Your task to perform on an android device: open app "Paramount+ | Peak Streaming" (install if not already installed) Image 0: 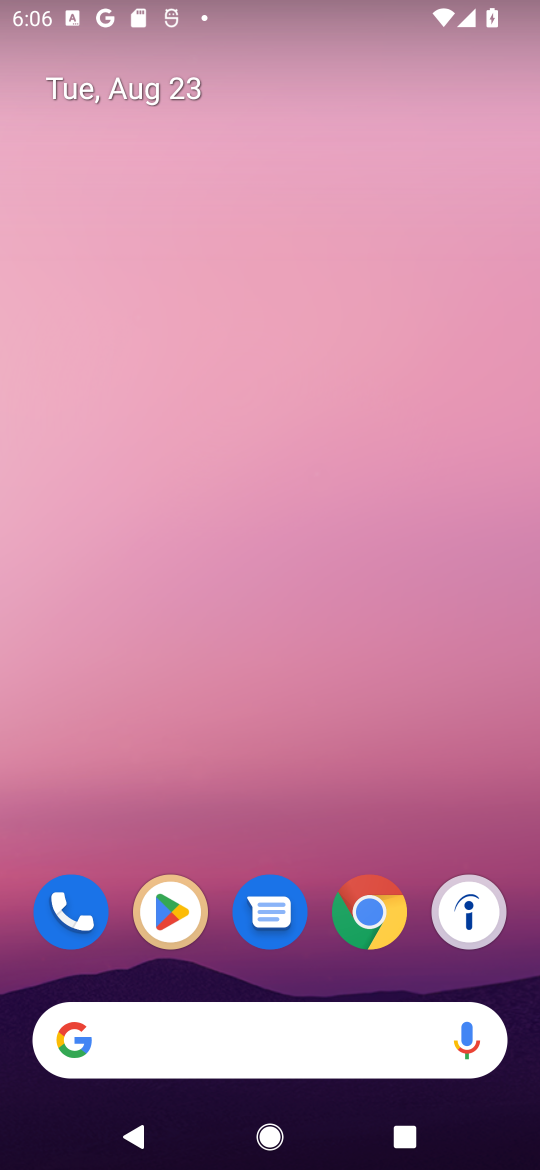
Step 0: click (163, 923)
Your task to perform on an android device: open app "Paramount+ | Peak Streaming" (install if not already installed) Image 1: 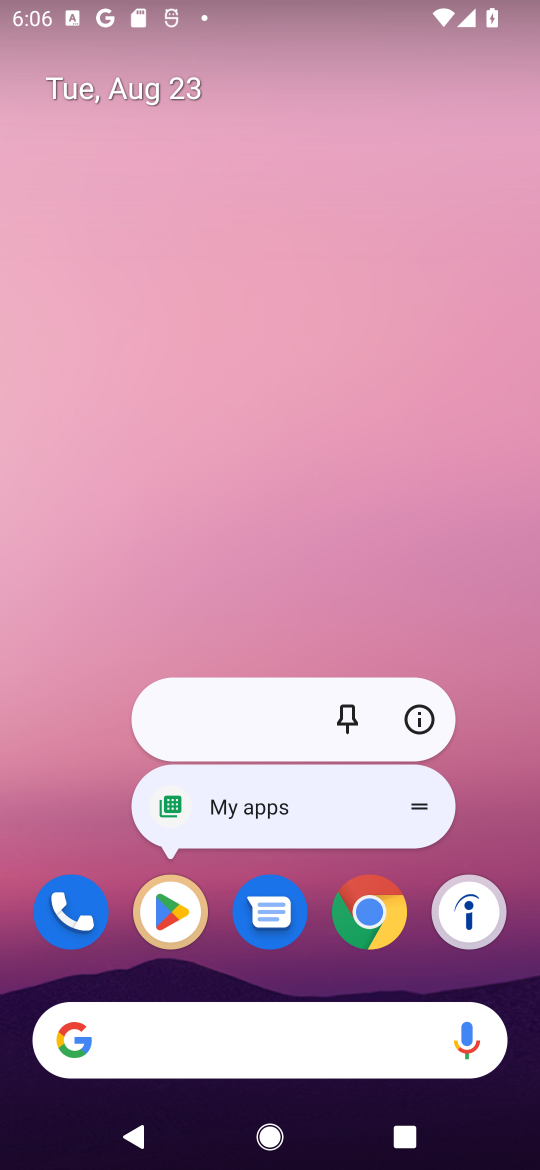
Step 1: click (163, 923)
Your task to perform on an android device: open app "Paramount+ | Peak Streaming" (install if not already installed) Image 2: 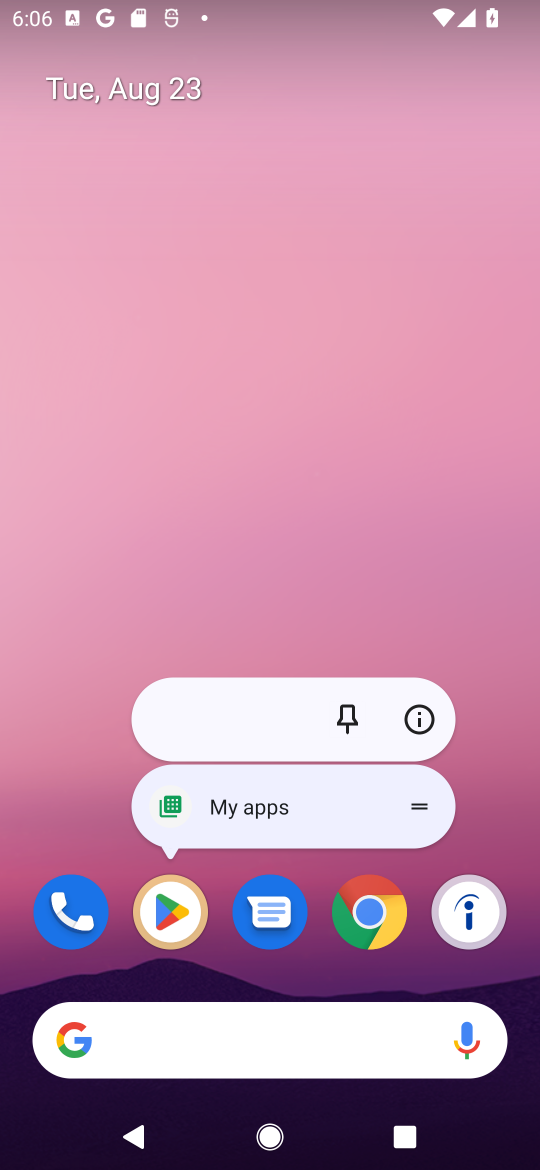
Step 2: click (168, 925)
Your task to perform on an android device: open app "Paramount+ | Peak Streaming" (install if not already installed) Image 3: 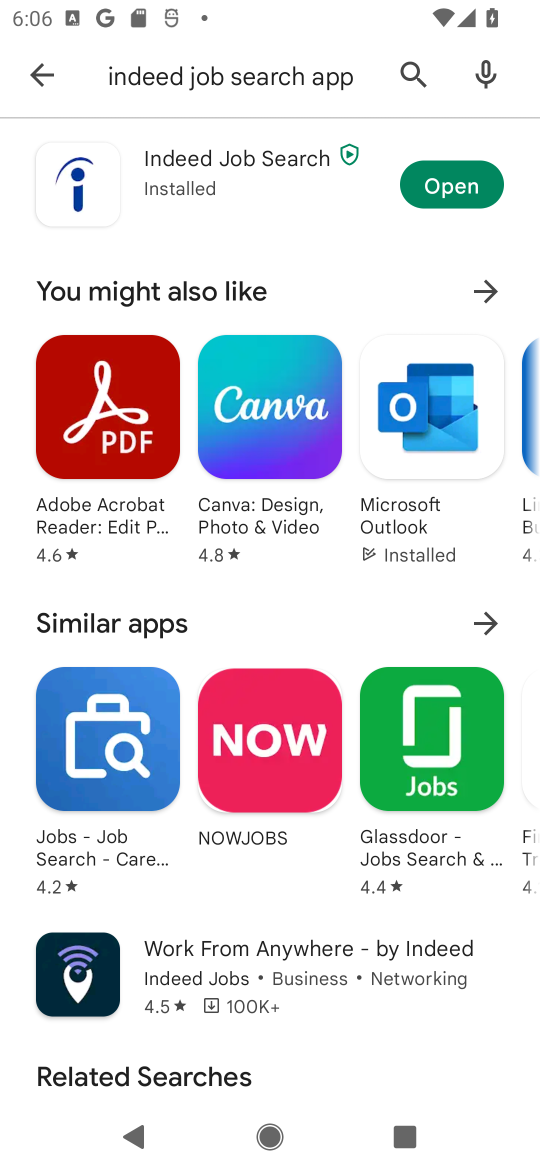
Step 3: click (55, 70)
Your task to perform on an android device: open app "Paramount+ | Peak Streaming" (install if not already installed) Image 4: 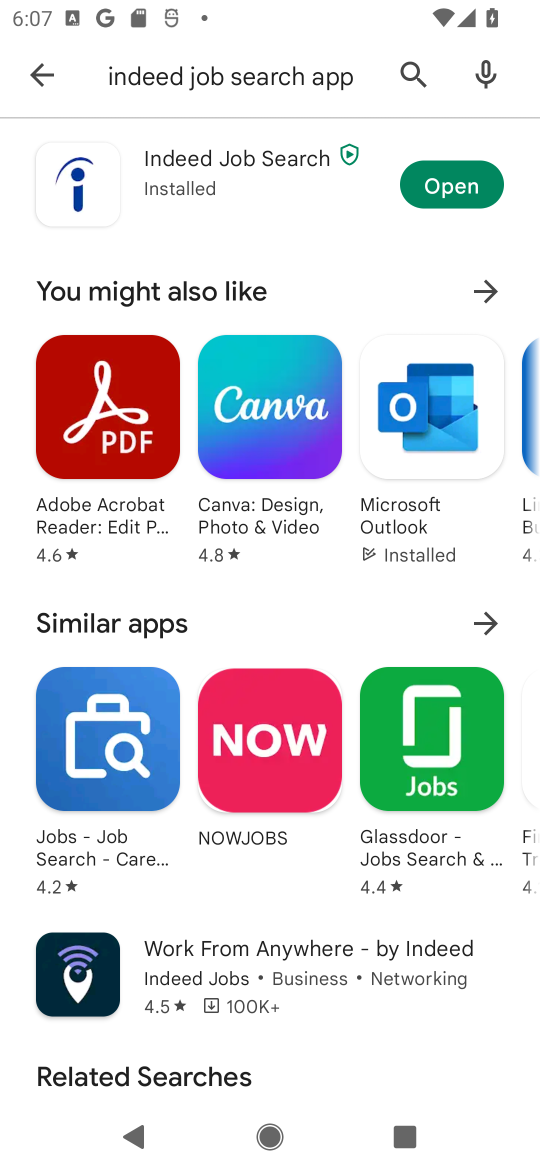
Step 4: click (50, 69)
Your task to perform on an android device: open app "Paramount+ | Peak Streaming" (install if not already installed) Image 5: 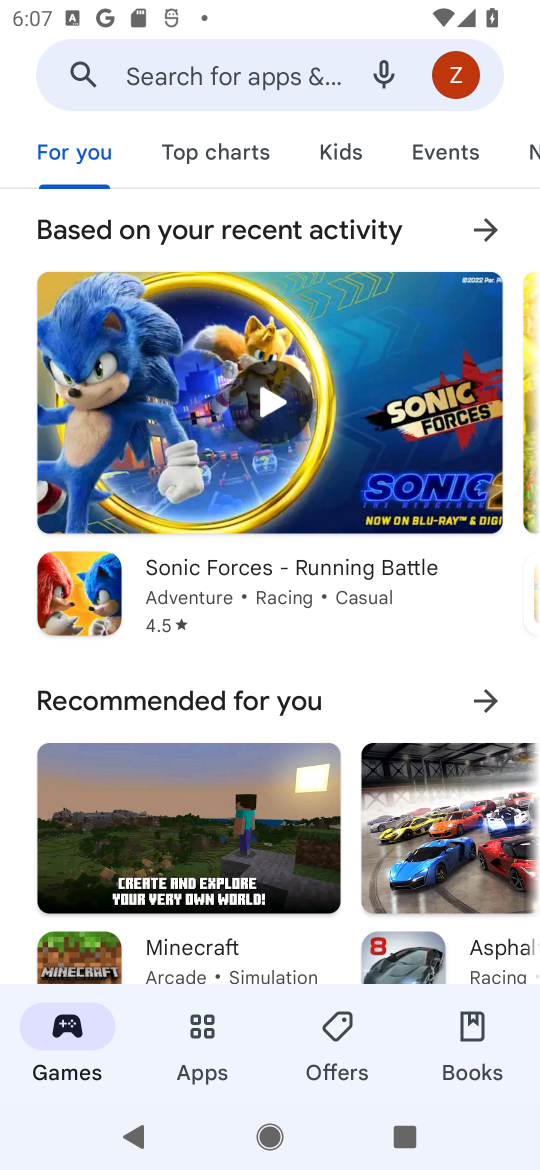
Step 5: click (232, 33)
Your task to perform on an android device: open app "Paramount+ | Peak Streaming" (install if not already installed) Image 6: 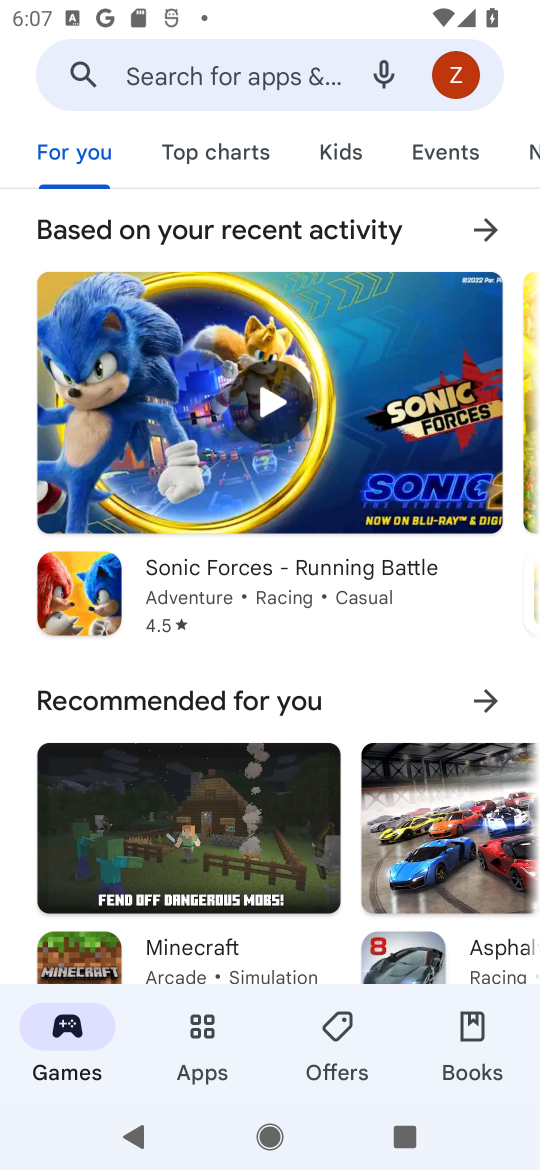
Step 6: type "Paramount+ "
Your task to perform on an android device: open app "Paramount+ | Peak Streaming" (install if not already installed) Image 7: 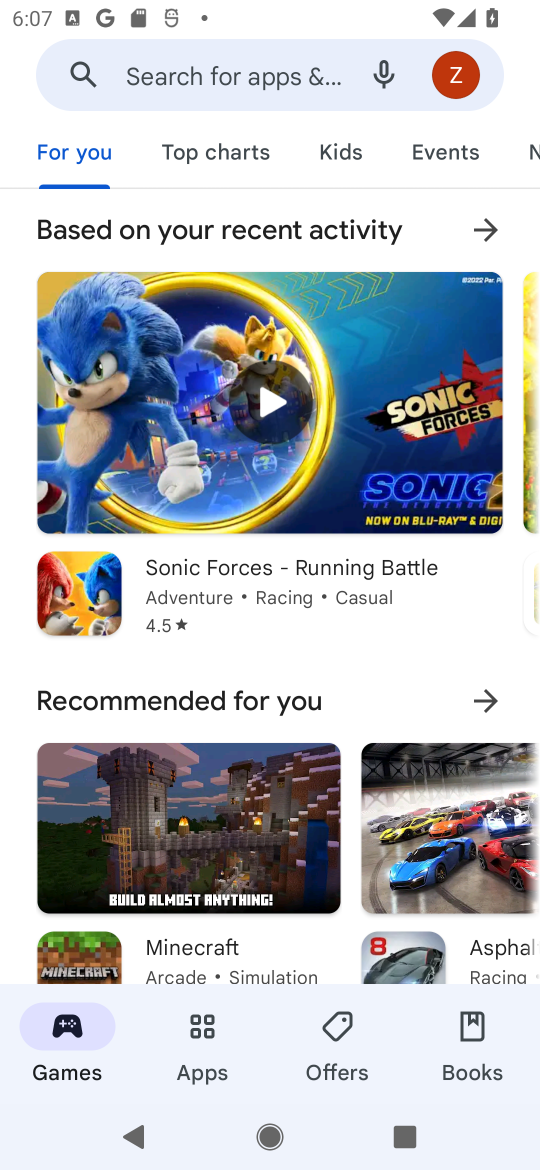
Step 7: click (202, 74)
Your task to perform on an android device: open app "Paramount+ | Peak Streaming" (install if not already installed) Image 8: 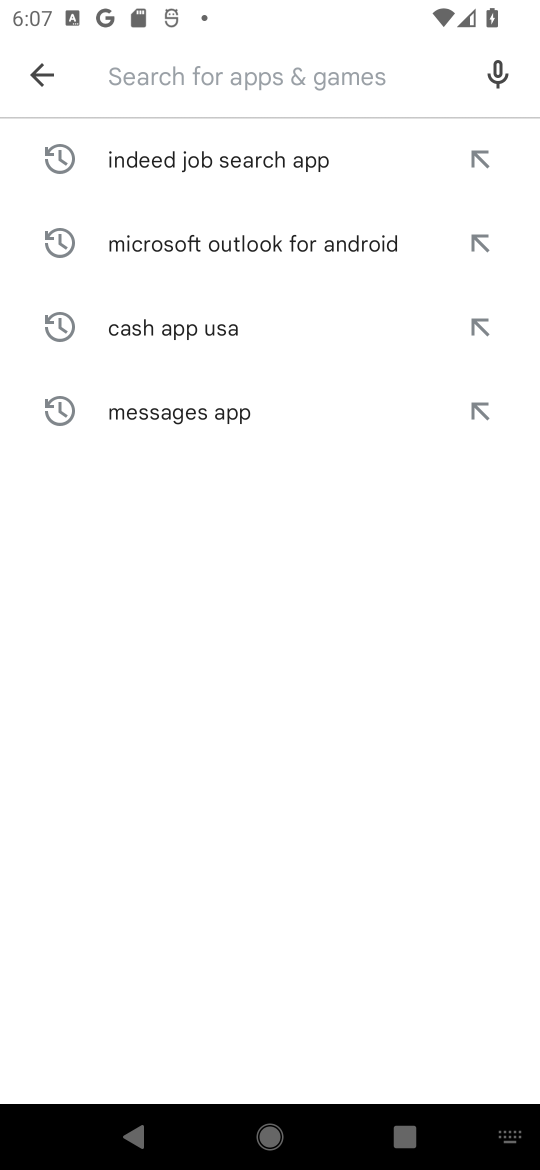
Step 8: click (209, 70)
Your task to perform on an android device: open app "Paramount+ | Peak Streaming" (install if not already installed) Image 9: 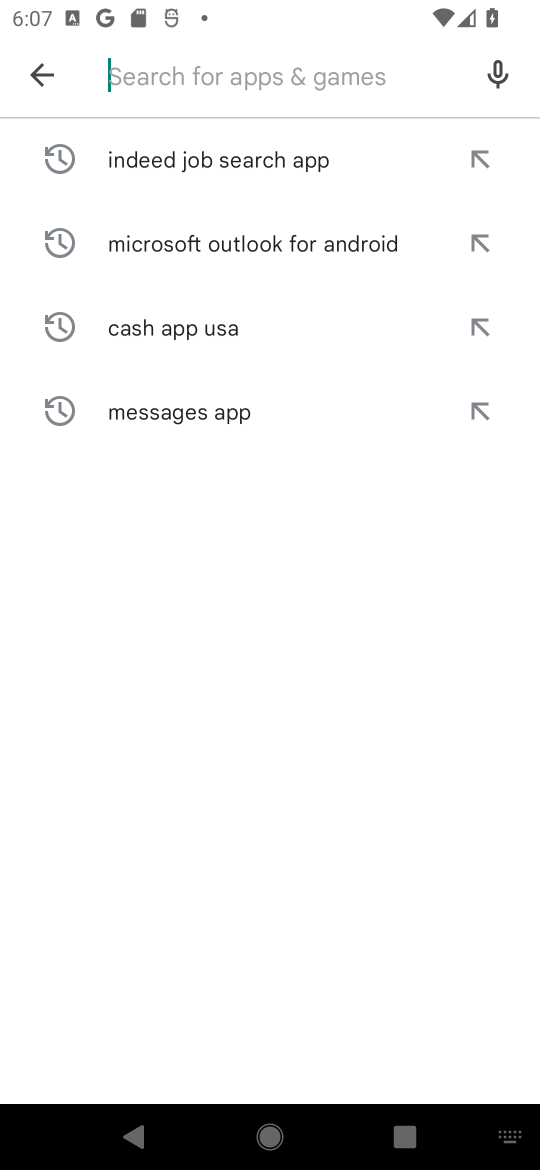
Step 9: type "Paramount+  "
Your task to perform on an android device: open app "Paramount+ | Peak Streaming" (install if not already installed) Image 10: 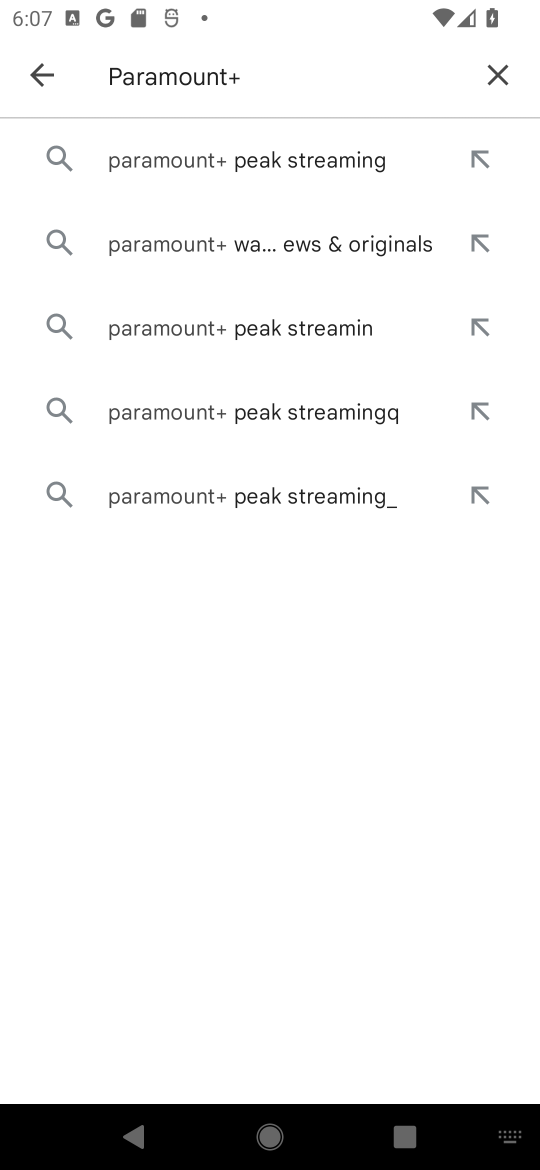
Step 10: click (152, 168)
Your task to perform on an android device: open app "Paramount+ | Peak Streaming" (install if not already installed) Image 11: 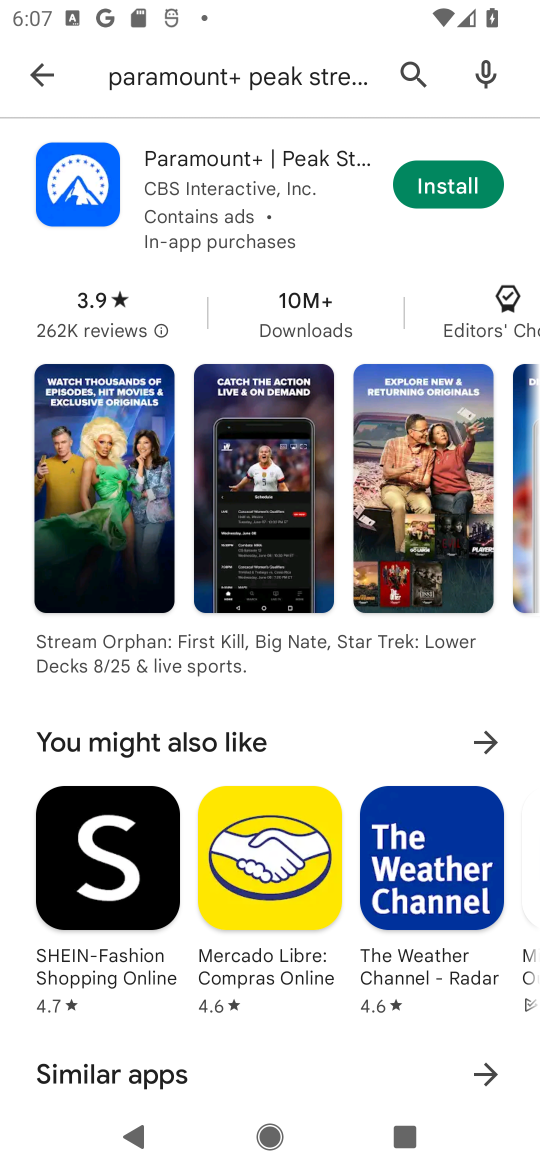
Step 11: click (432, 189)
Your task to perform on an android device: open app "Paramount+ | Peak Streaming" (install if not already installed) Image 12: 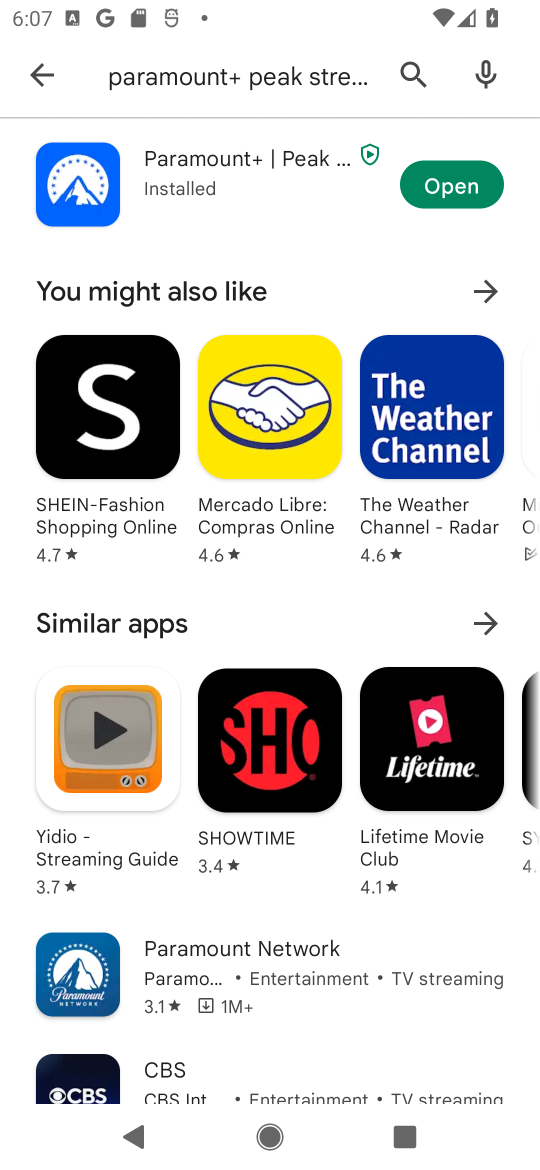
Step 12: click (444, 179)
Your task to perform on an android device: open app "Paramount+ | Peak Streaming" (install if not already installed) Image 13: 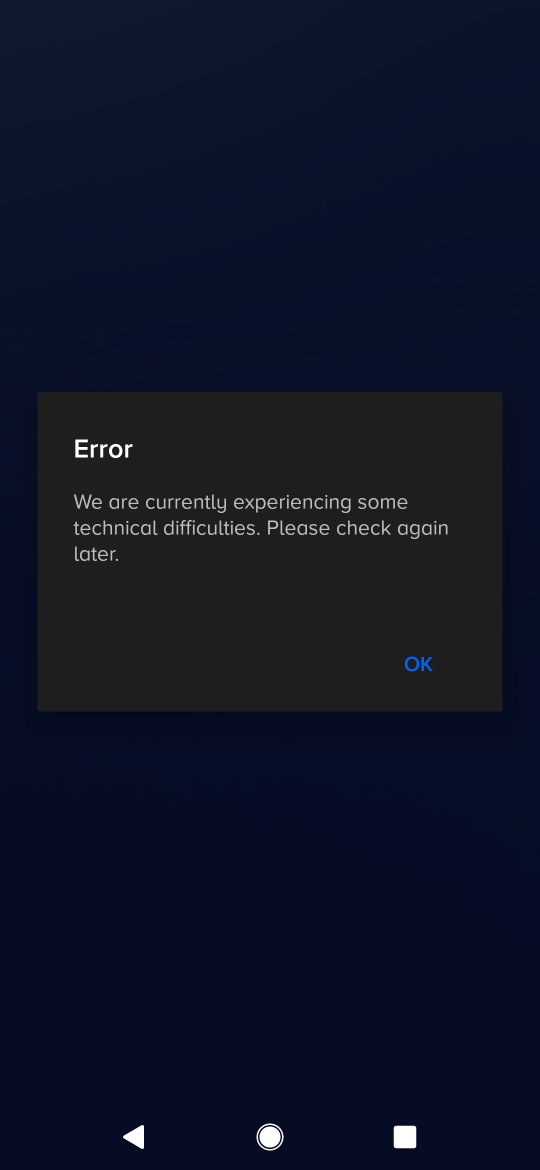
Step 13: task complete